Your task to perform on an android device: check data usage Image 0: 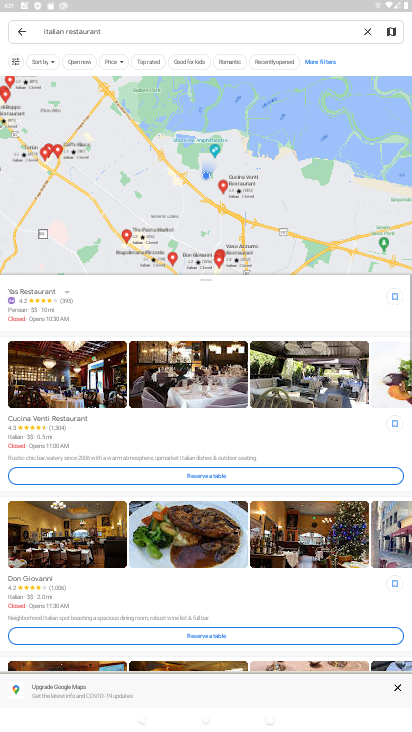
Step 0: press home button
Your task to perform on an android device: check data usage Image 1: 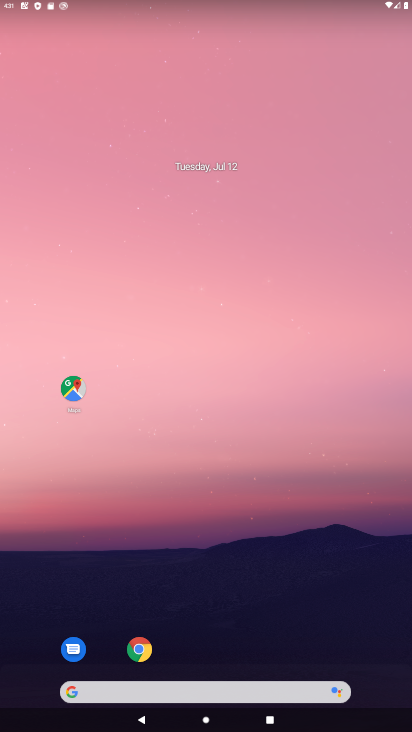
Step 1: drag from (259, 595) to (204, 56)
Your task to perform on an android device: check data usage Image 2: 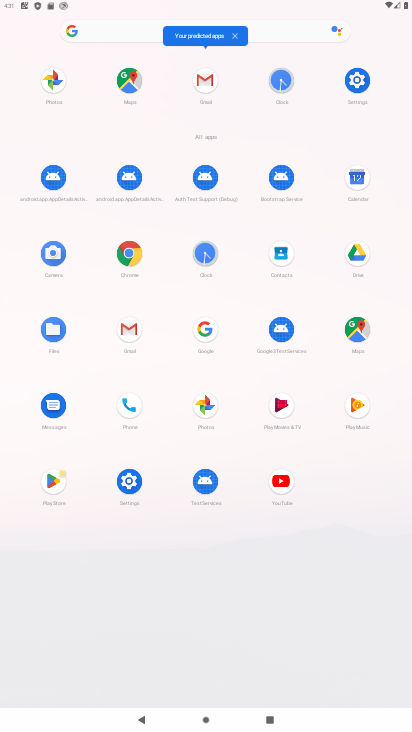
Step 2: click (362, 80)
Your task to perform on an android device: check data usage Image 3: 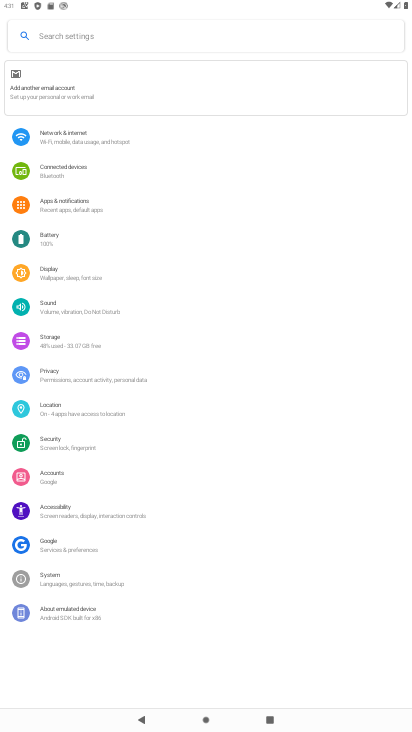
Step 3: click (64, 144)
Your task to perform on an android device: check data usage Image 4: 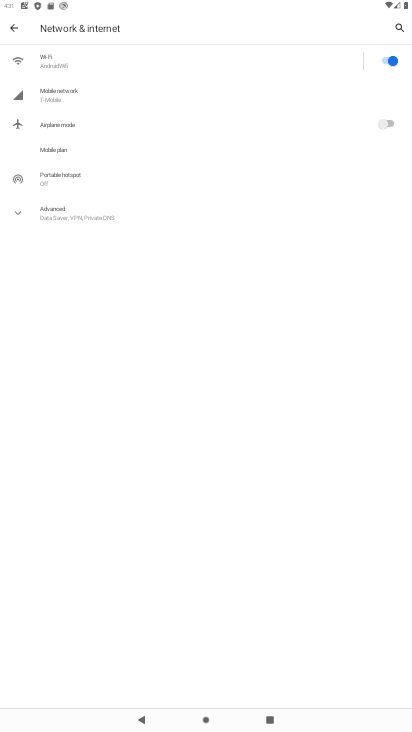
Step 4: click (64, 92)
Your task to perform on an android device: check data usage Image 5: 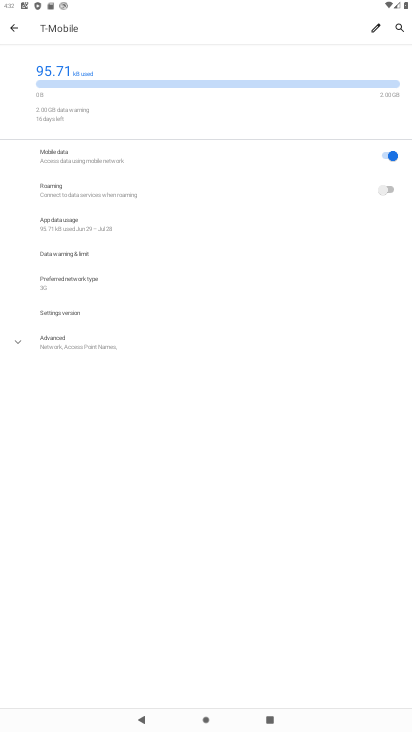
Step 5: click (168, 229)
Your task to perform on an android device: check data usage Image 6: 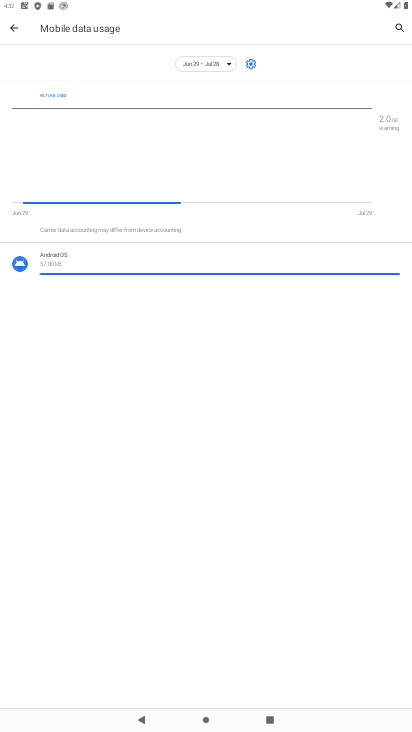
Step 6: task complete